Your task to perform on an android device: change the upload size in google photos Image 0: 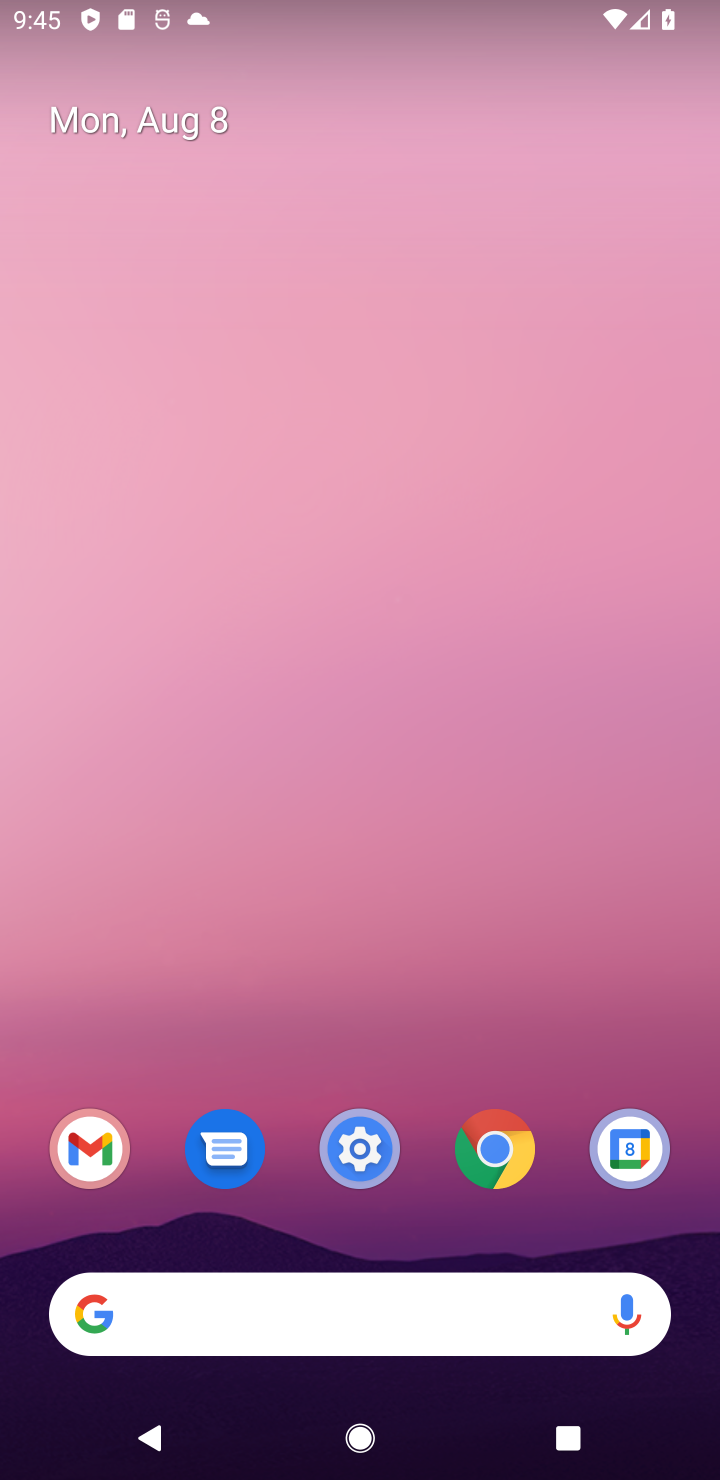
Step 0: drag from (411, 810) to (433, 585)
Your task to perform on an android device: change the upload size in google photos Image 1: 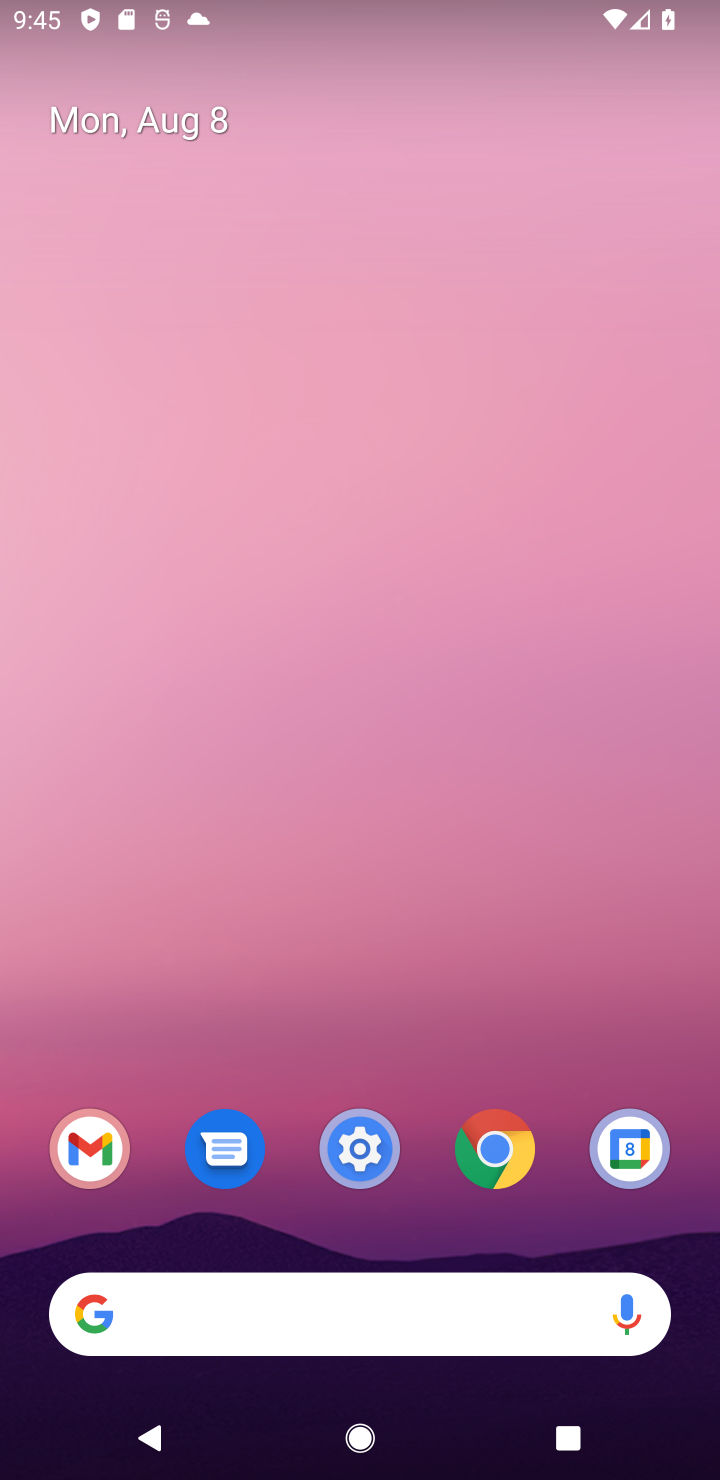
Step 1: drag from (447, 1156) to (444, 531)
Your task to perform on an android device: change the upload size in google photos Image 2: 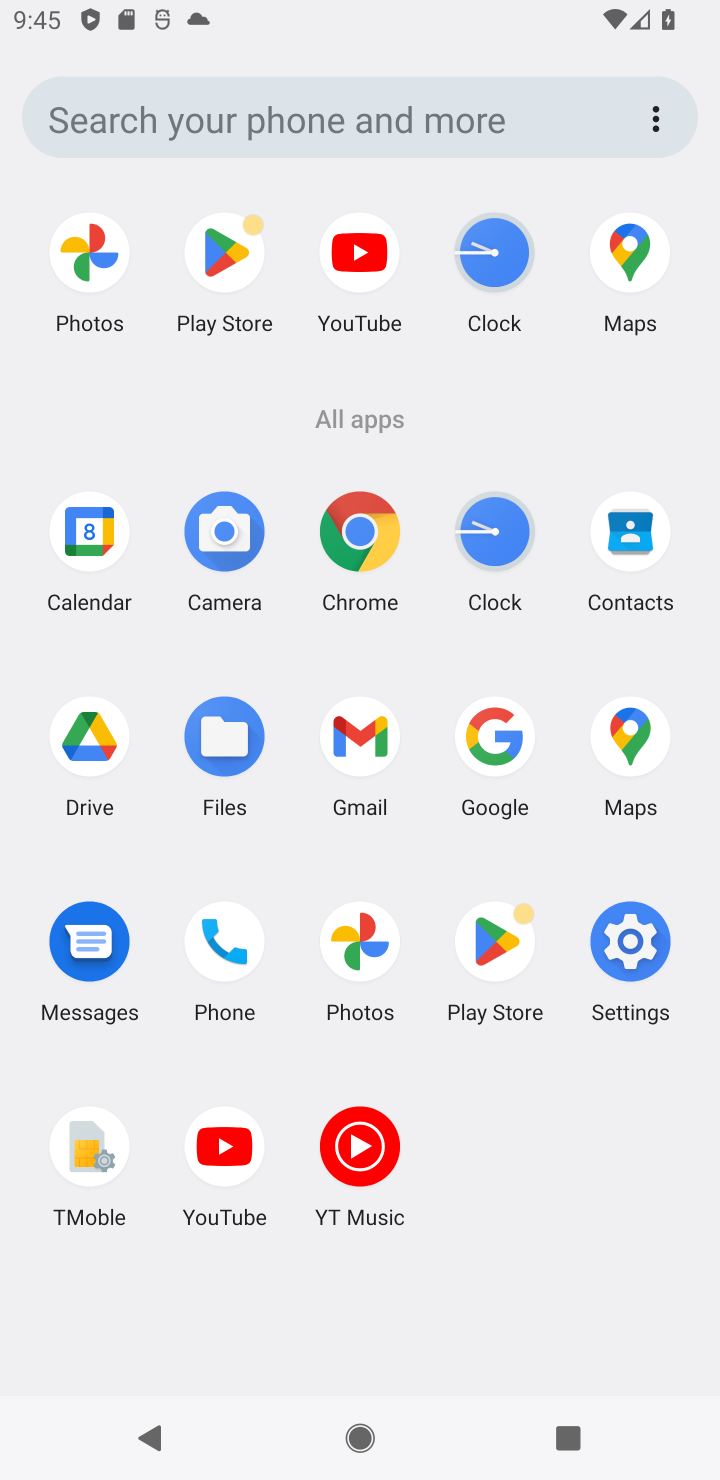
Step 2: click (369, 950)
Your task to perform on an android device: change the upload size in google photos Image 3: 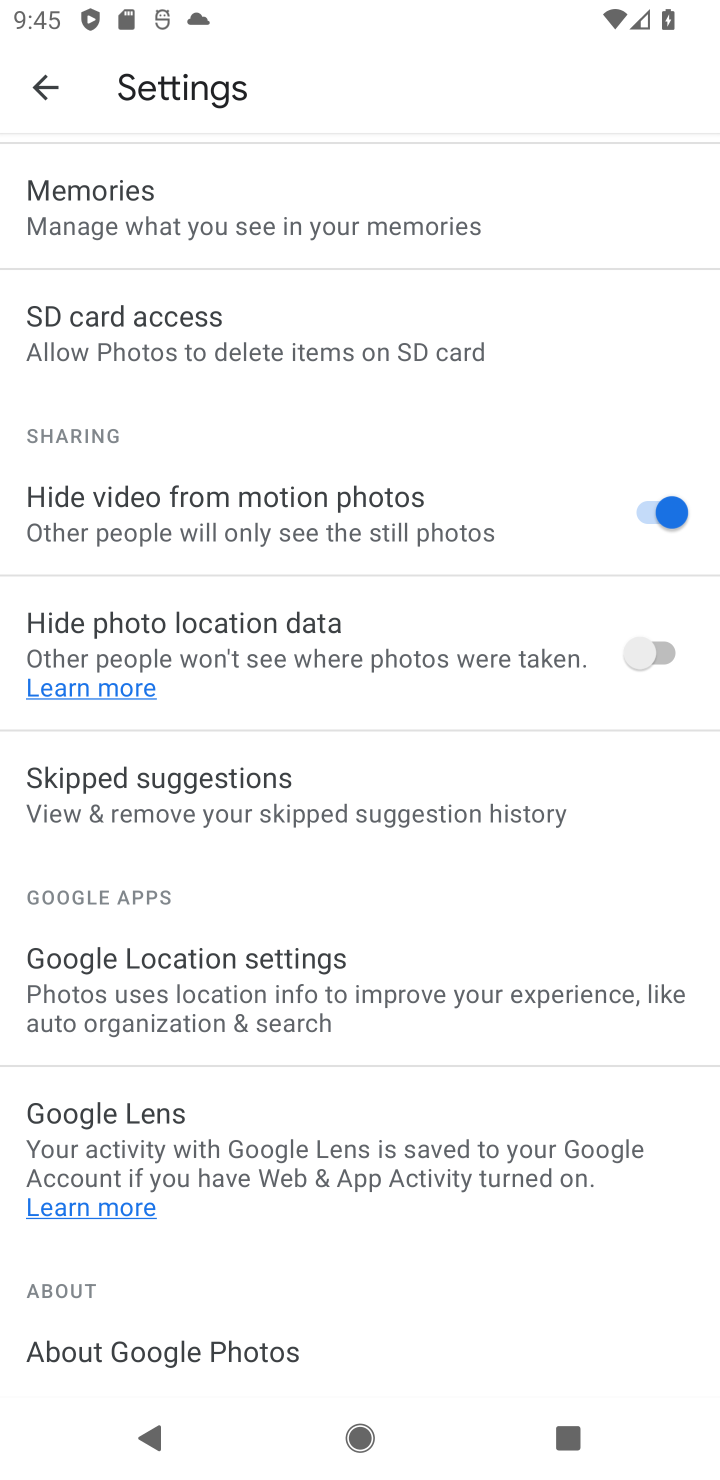
Step 3: click (41, 86)
Your task to perform on an android device: change the upload size in google photos Image 4: 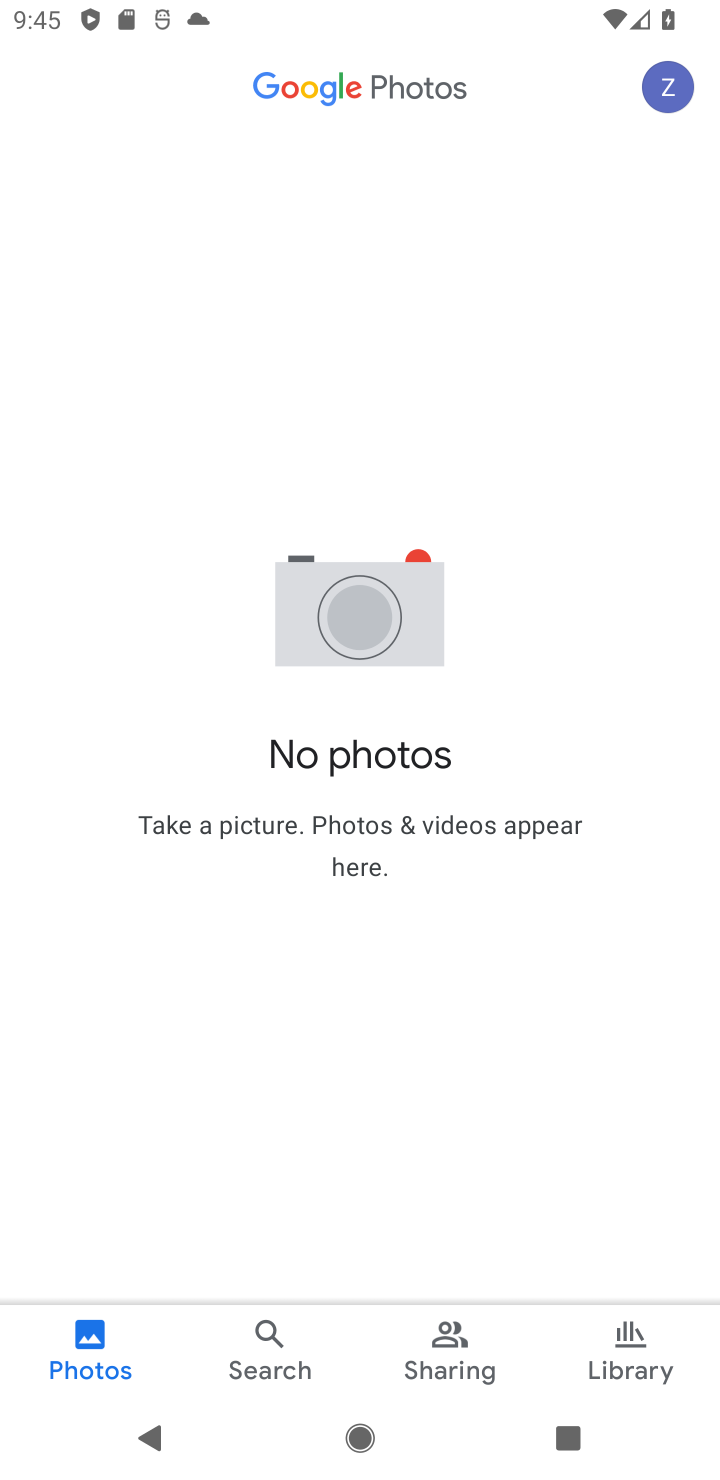
Step 4: click (659, 99)
Your task to perform on an android device: change the upload size in google photos Image 5: 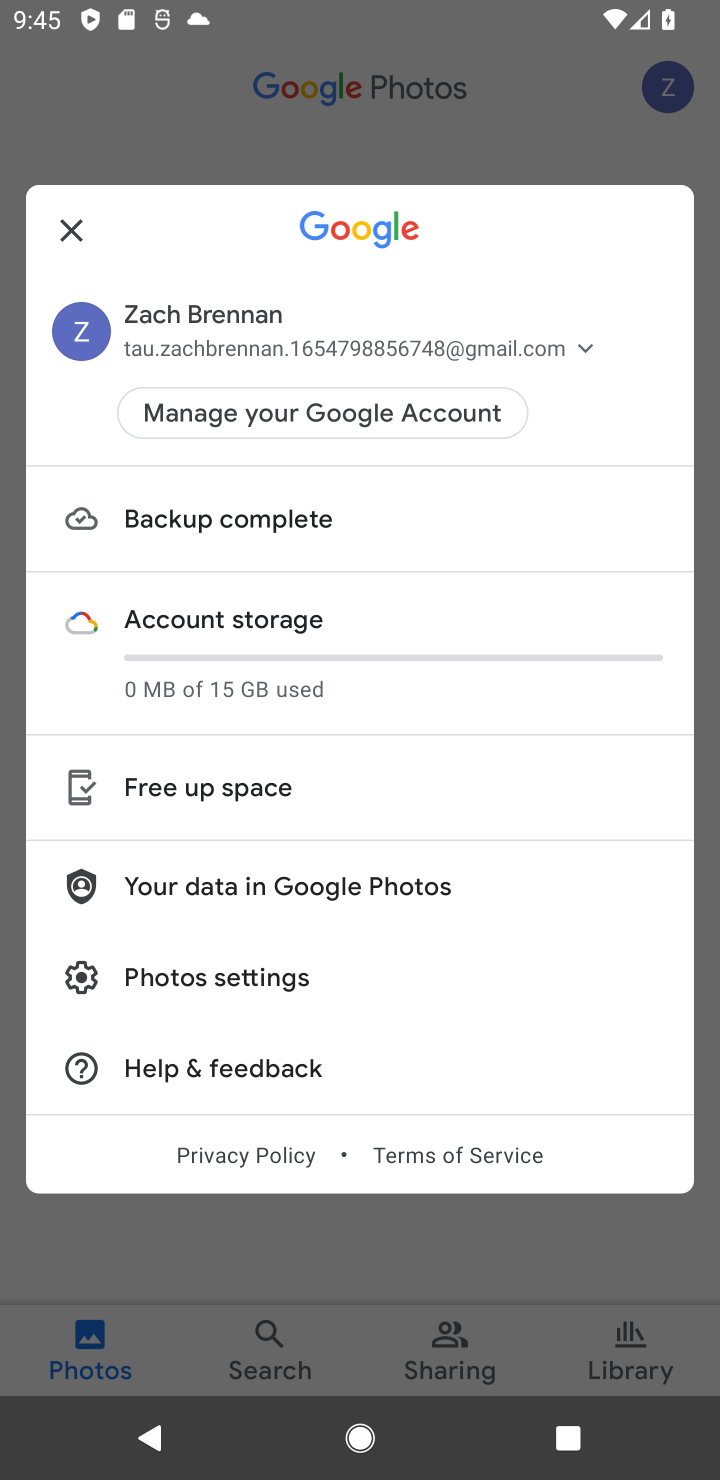
Step 5: click (205, 987)
Your task to perform on an android device: change the upload size in google photos Image 6: 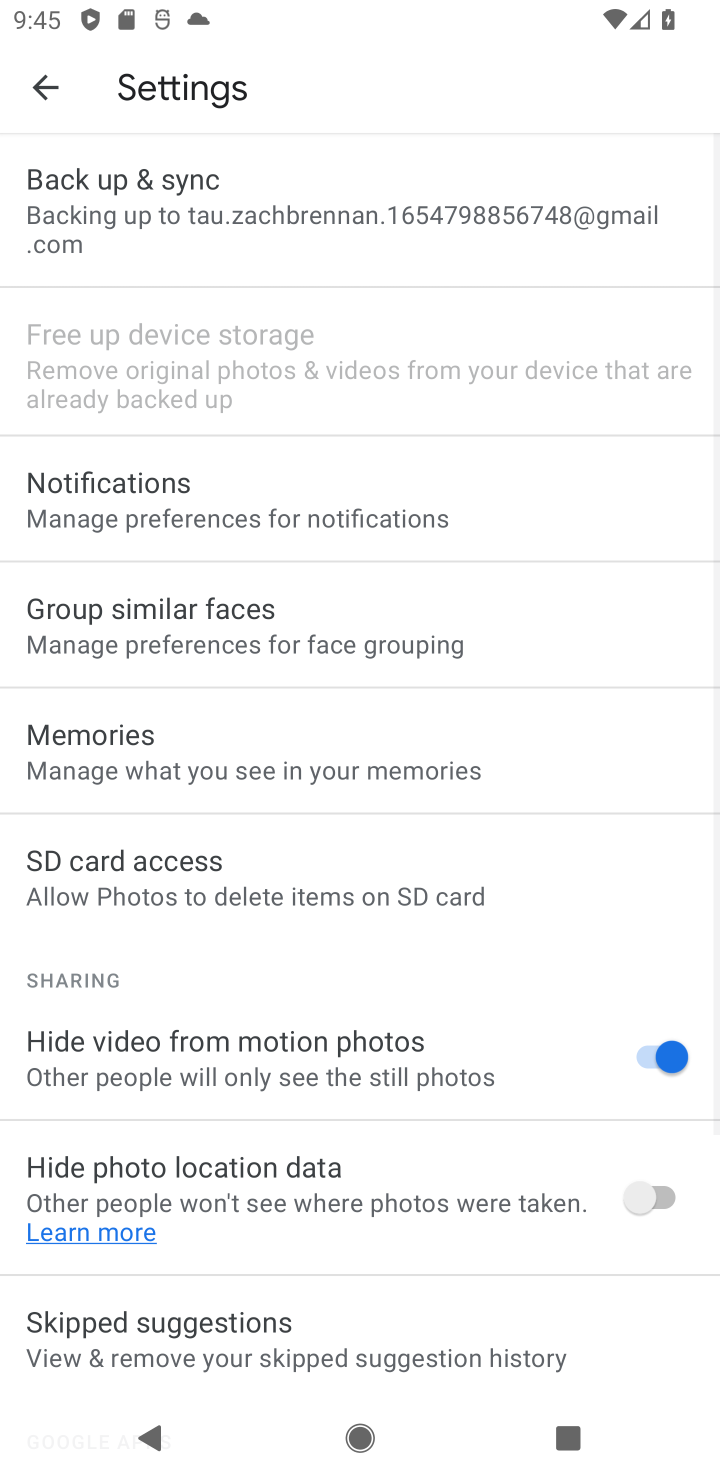
Step 6: click (167, 194)
Your task to perform on an android device: change the upload size in google photos Image 7: 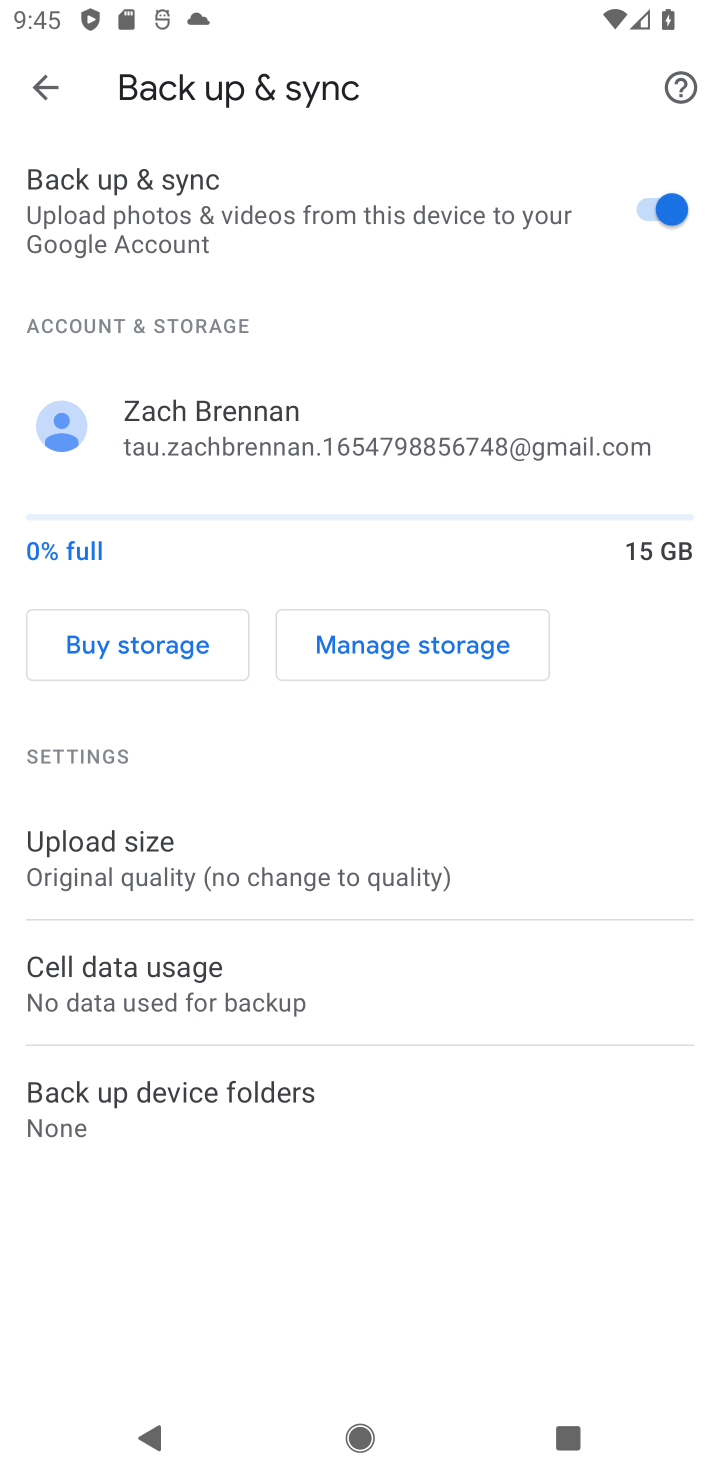
Step 7: click (277, 848)
Your task to perform on an android device: change the upload size in google photos Image 8: 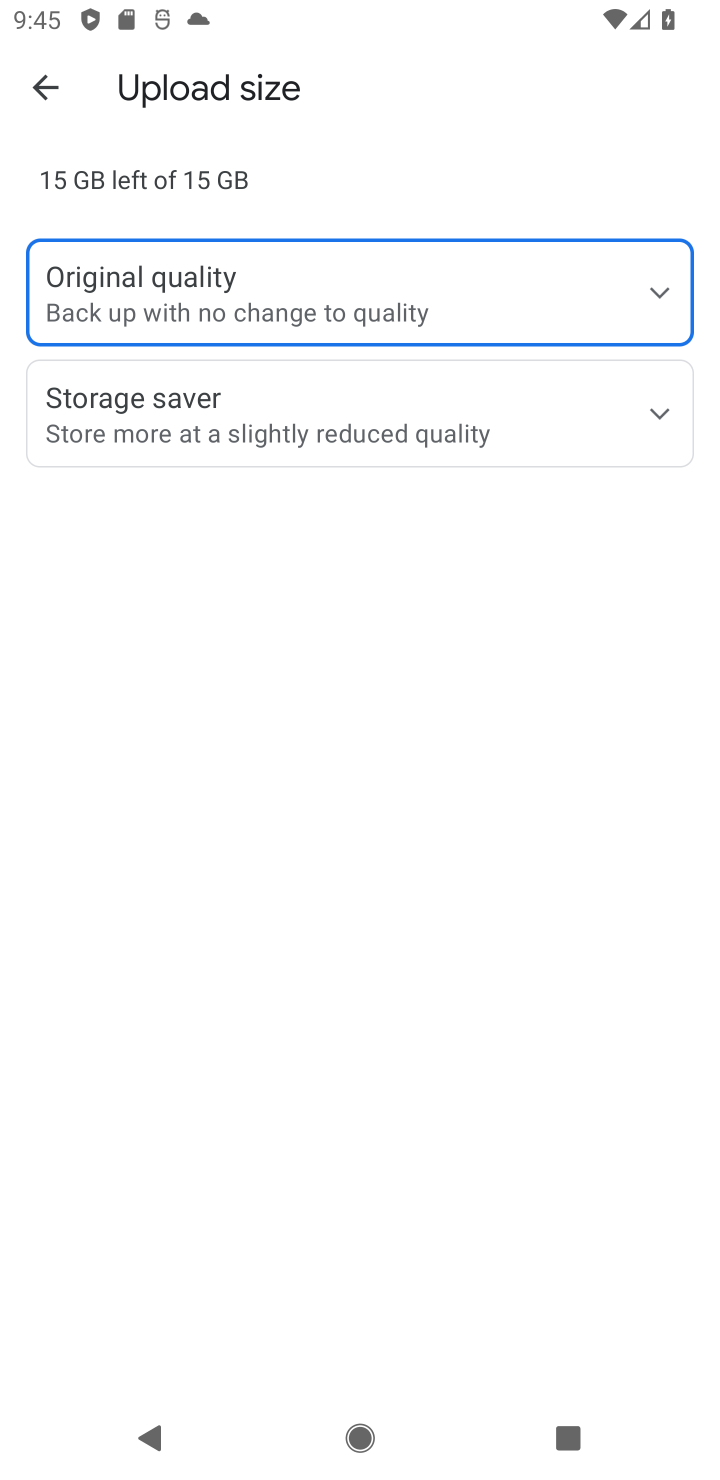
Step 8: click (263, 416)
Your task to perform on an android device: change the upload size in google photos Image 9: 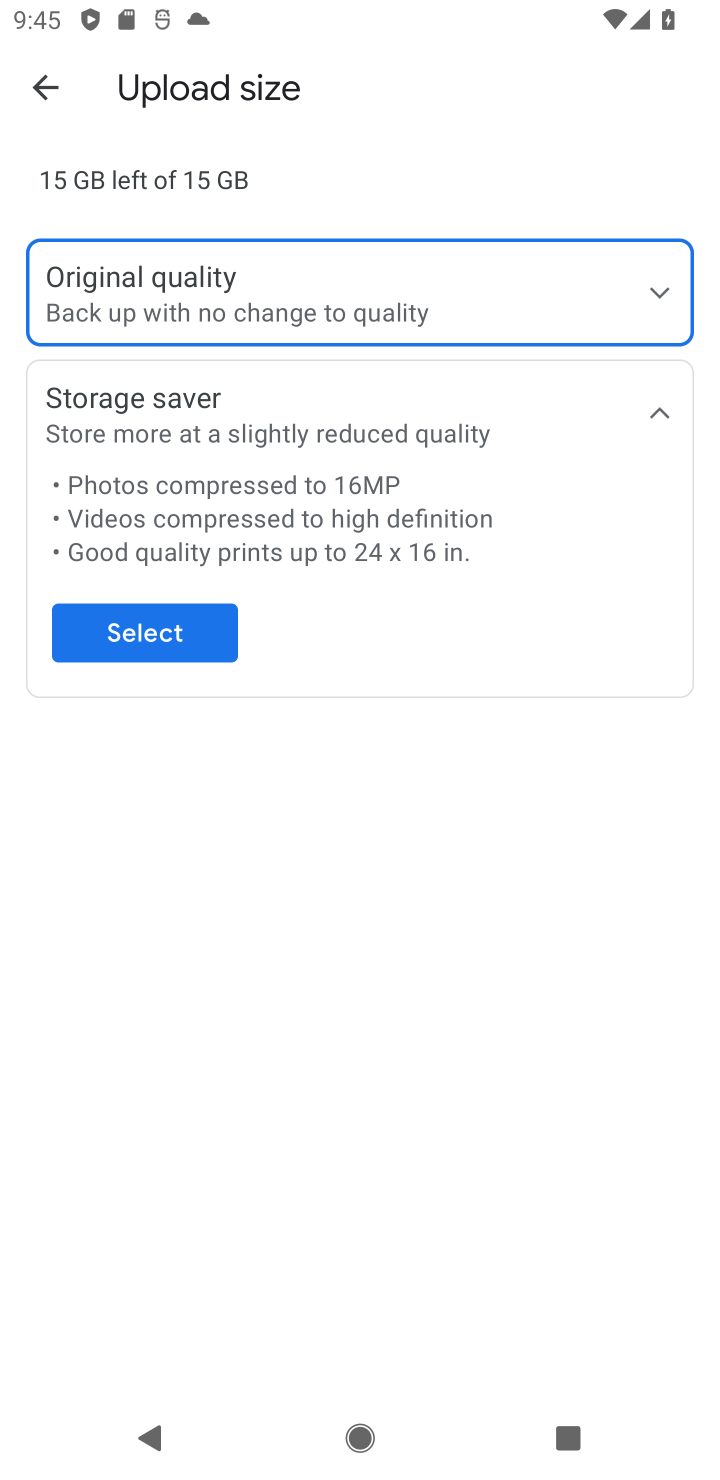
Step 9: click (133, 624)
Your task to perform on an android device: change the upload size in google photos Image 10: 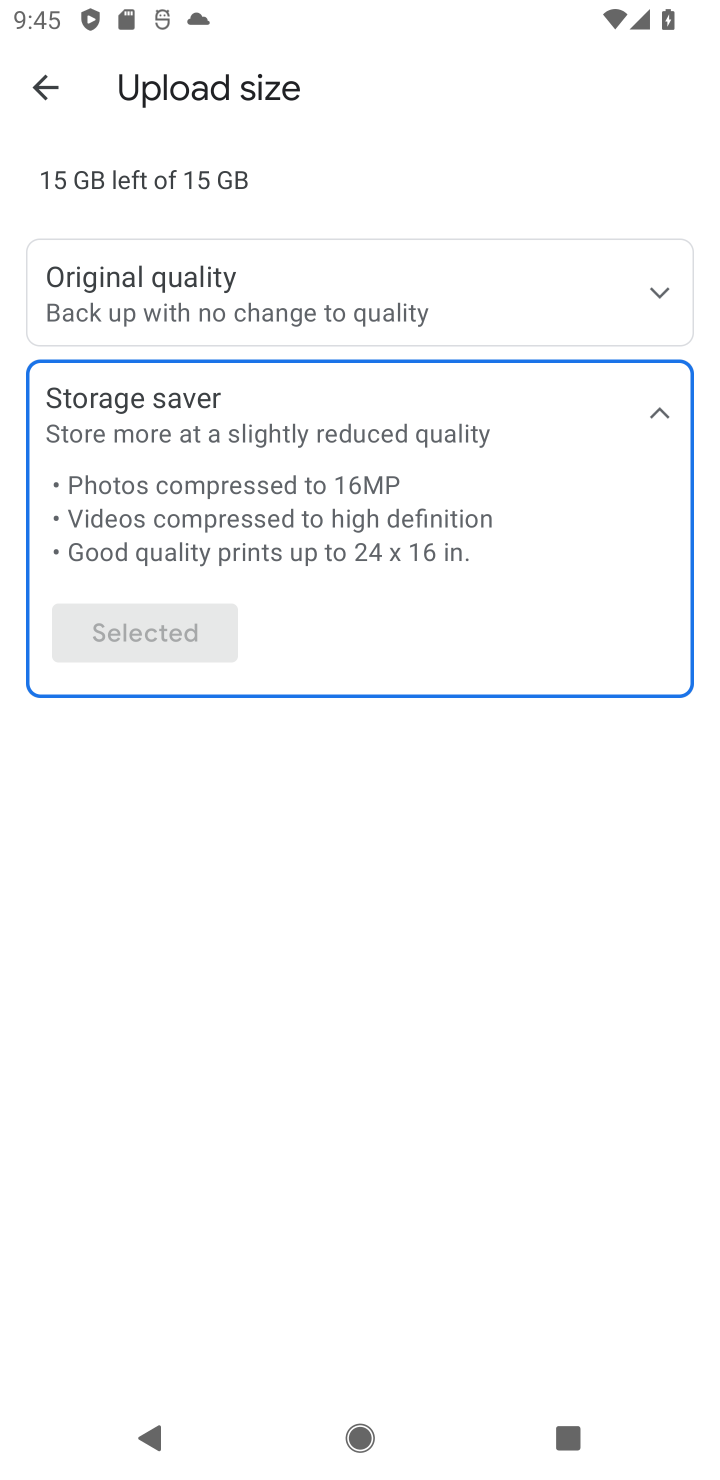
Step 10: task complete